Your task to perform on an android device: What's on my calendar tomorrow? Image 0: 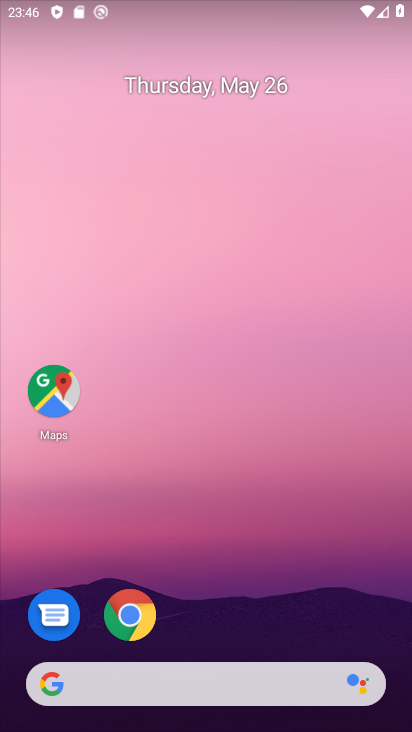
Step 0: drag from (281, 593) to (185, 221)
Your task to perform on an android device: What's on my calendar tomorrow? Image 1: 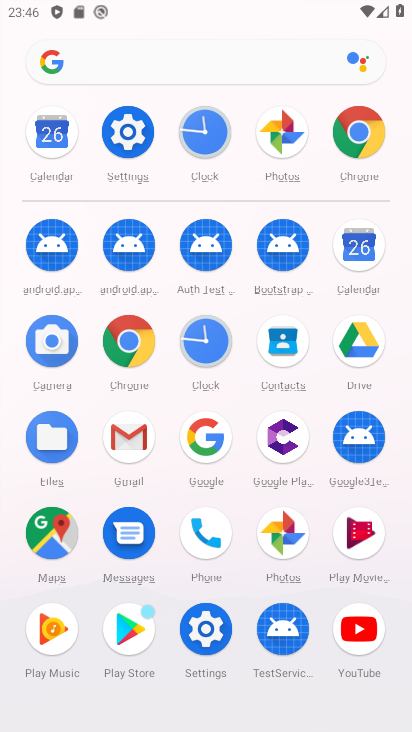
Step 1: click (376, 218)
Your task to perform on an android device: What's on my calendar tomorrow? Image 2: 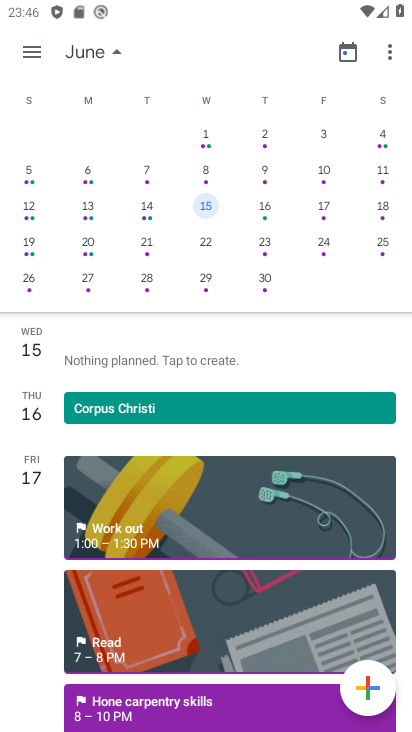
Step 2: drag from (94, 166) to (169, 425)
Your task to perform on an android device: What's on my calendar tomorrow? Image 3: 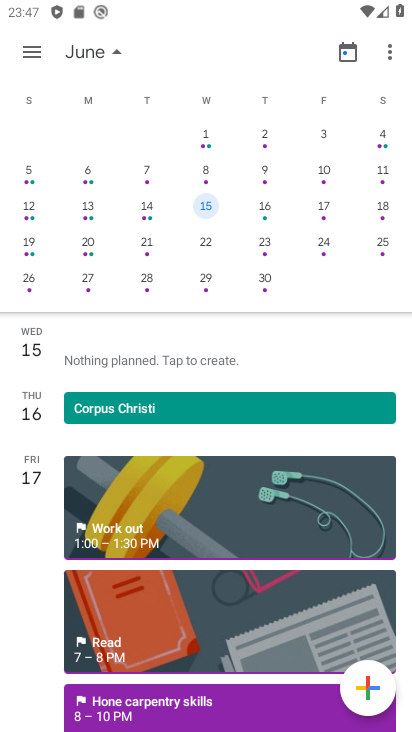
Step 3: drag from (36, 220) to (344, 329)
Your task to perform on an android device: What's on my calendar tomorrow? Image 4: 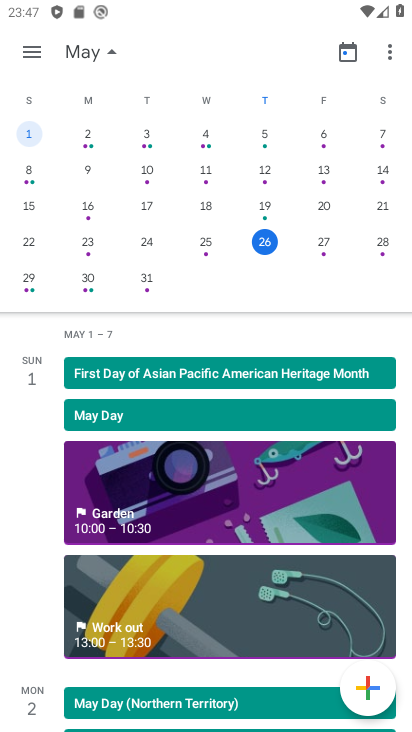
Step 4: click (378, 241)
Your task to perform on an android device: What's on my calendar tomorrow? Image 5: 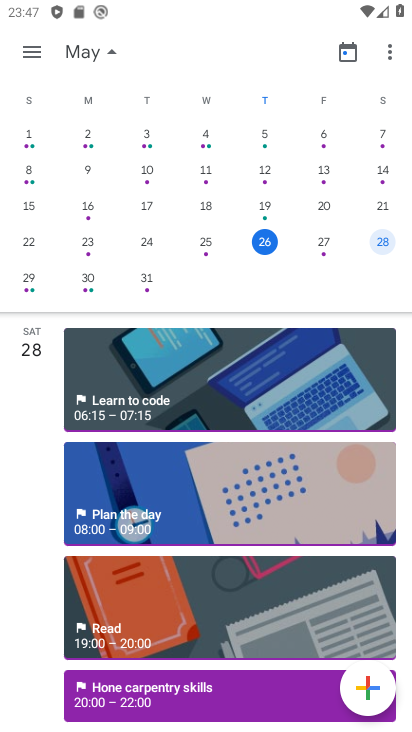
Step 5: click (87, 55)
Your task to perform on an android device: What's on my calendar tomorrow? Image 6: 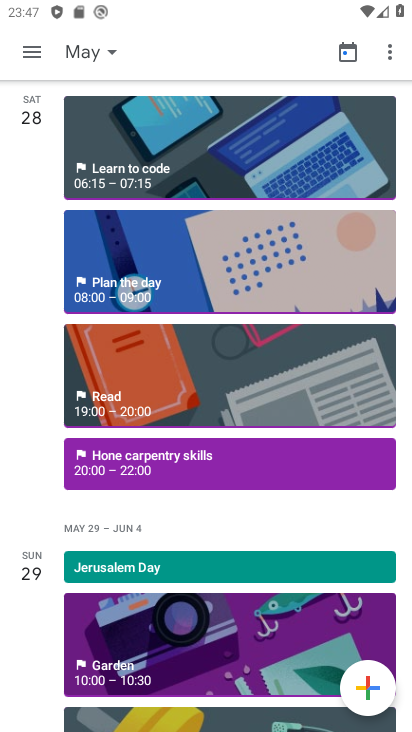
Step 6: task complete